Your task to perform on an android device: turn notification dots on Image 0: 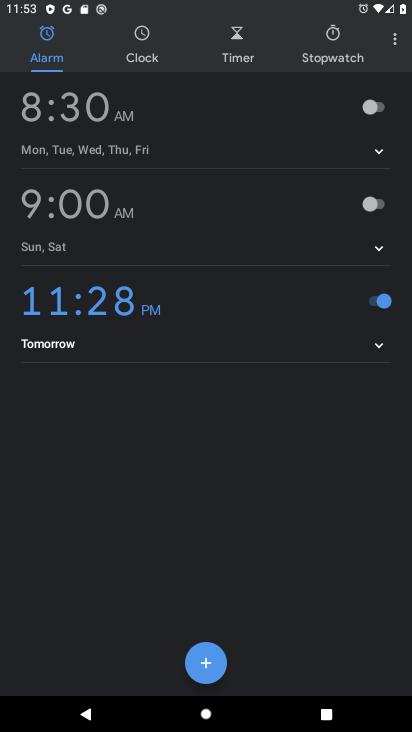
Step 0: press home button
Your task to perform on an android device: turn notification dots on Image 1: 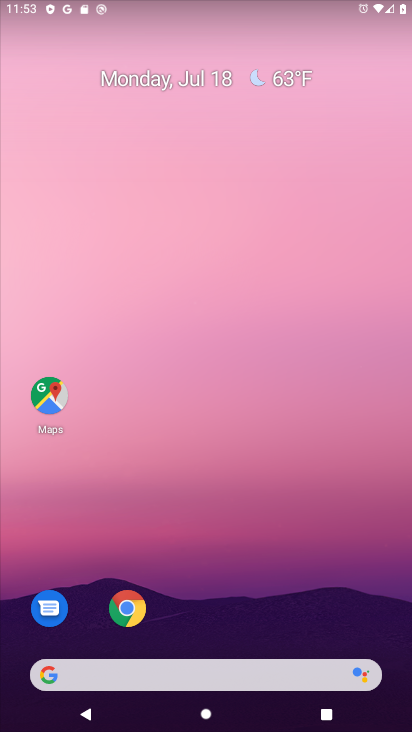
Step 1: drag from (247, 588) to (238, 154)
Your task to perform on an android device: turn notification dots on Image 2: 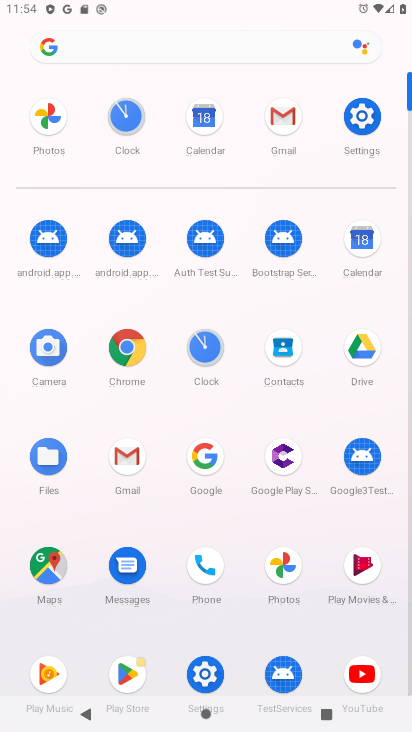
Step 2: click (358, 123)
Your task to perform on an android device: turn notification dots on Image 3: 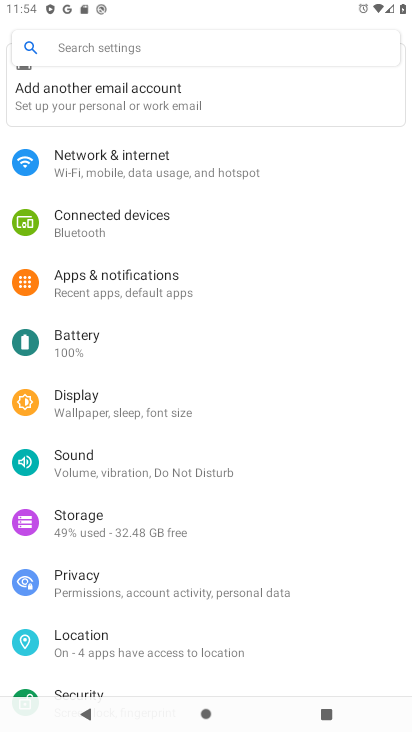
Step 3: click (133, 282)
Your task to perform on an android device: turn notification dots on Image 4: 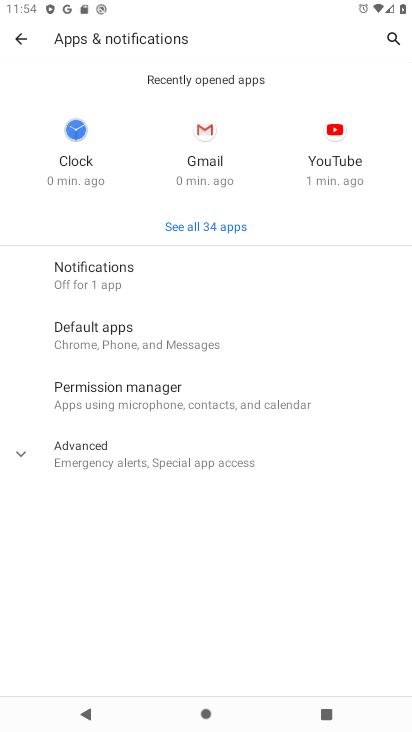
Step 4: click (132, 281)
Your task to perform on an android device: turn notification dots on Image 5: 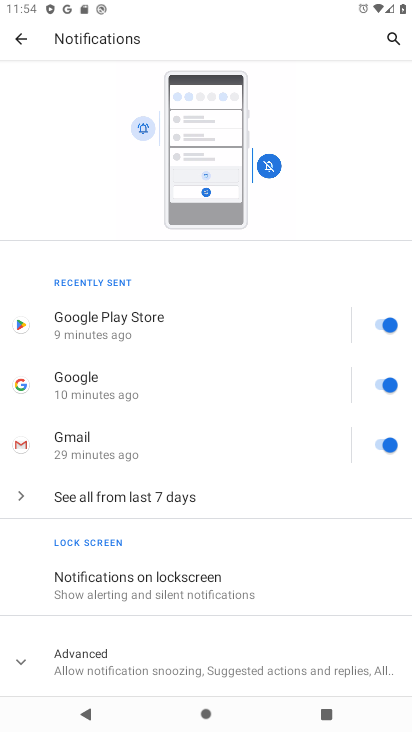
Step 5: click (163, 658)
Your task to perform on an android device: turn notification dots on Image 6: 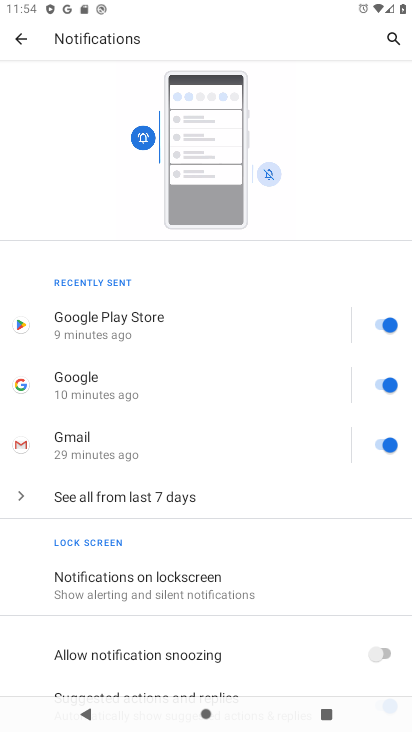
Step 6: task complete